Your task to perform on an android device: turn on javascript in the chrome app Image 0: 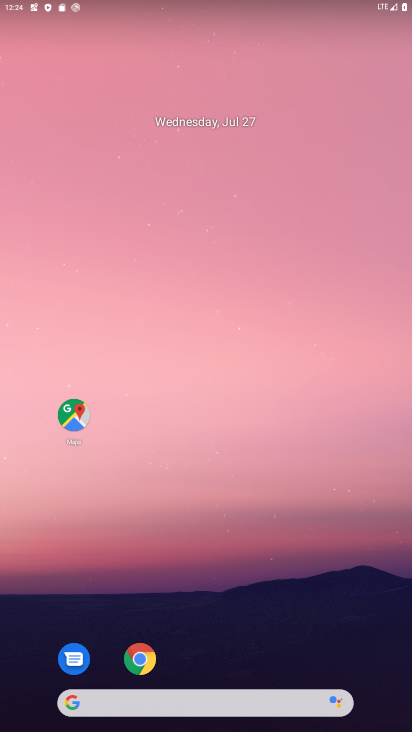
Step 0: click (136, 661)
Your task to perform on an android device: turn on javascript in the chrome app Image 1: 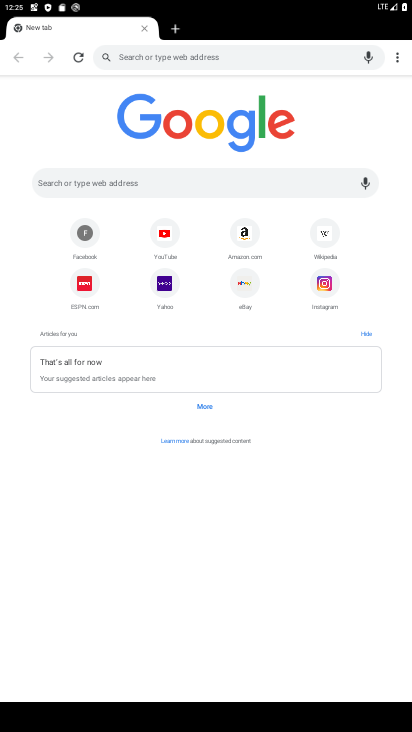
Step 1: click (397, 60)
Your task to perform on an android device: turn on javascript in the chrome app Image 2: 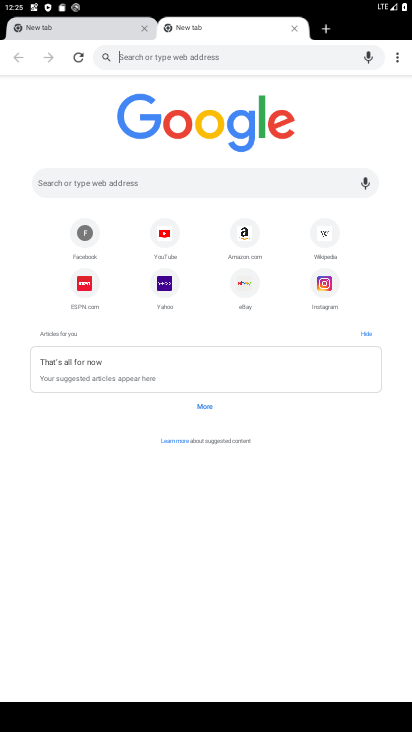
Step 2: click (396, 54)
Your task to perform on an android device: turn on javascript in the chrome app Image 3: 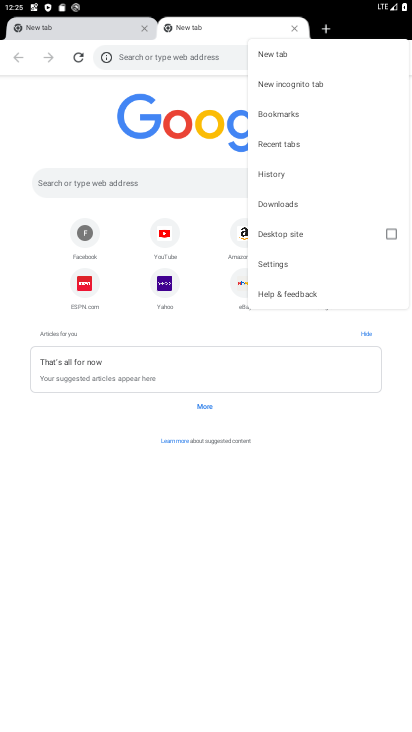
Step 3: click (295, 261)
Your task to perform on an android device: turn on javascript in the chrome app Image 4: 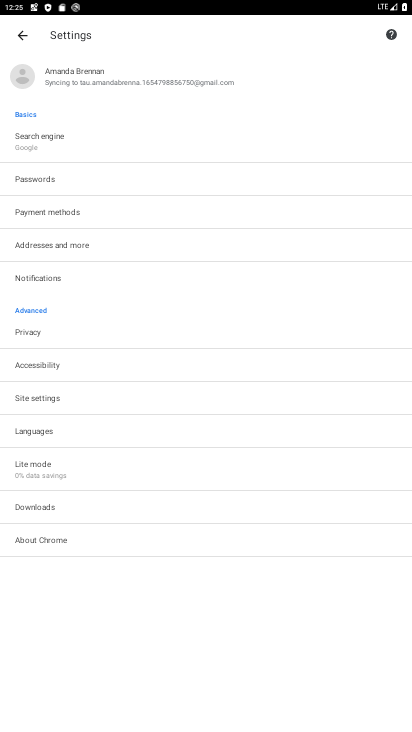
Step 4: click (34, 394)
Your task to perform on an android device: turn on javascript in the chrome app Image 5: 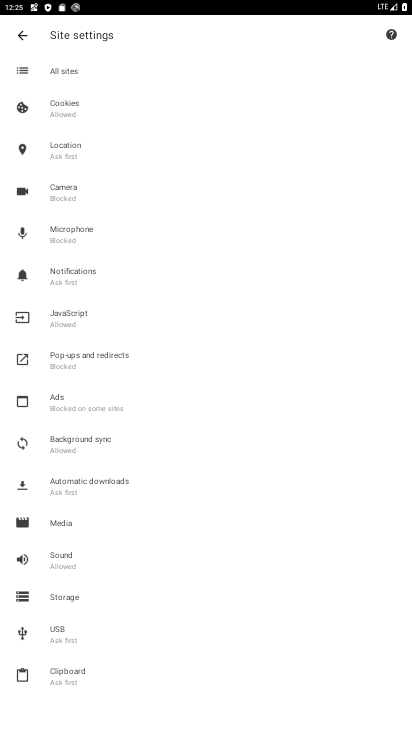
Step 5: click (68, 320)
Your task to perform on an android device: turn on javascript in the chrome app Image 6: 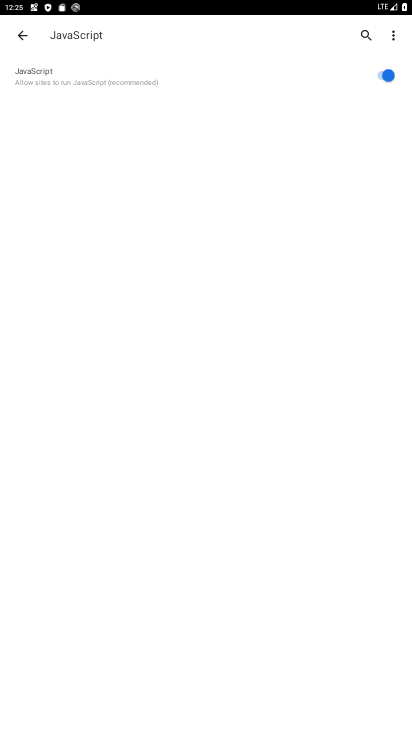
Step 6: click (393, 72)
Your task to perform on an android device: turn on javascript in the chrome app Image 7: 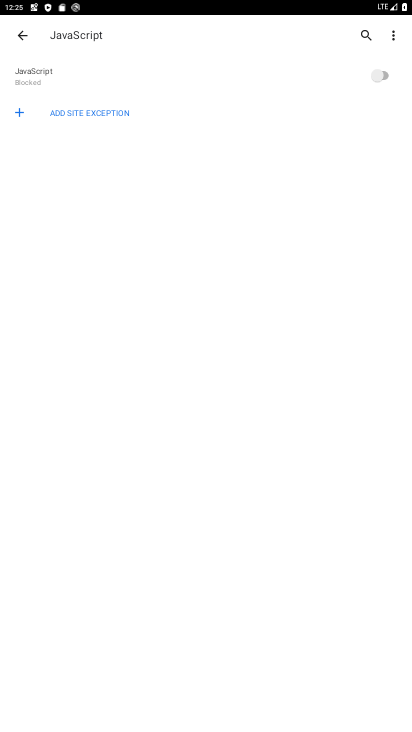
Step 7: click (390, 76)
Your task to perform on an android device: turn on javascript in the chrome app Image 8: 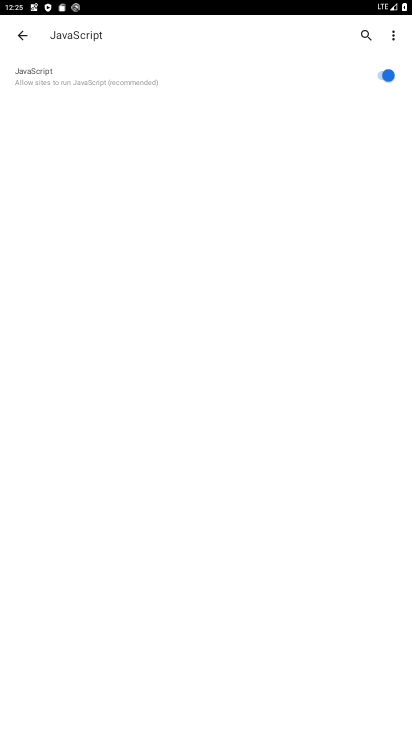
Step 8: task complete